Your task to perform on an android device: turn off notifications settings in the gmail app Image 0: 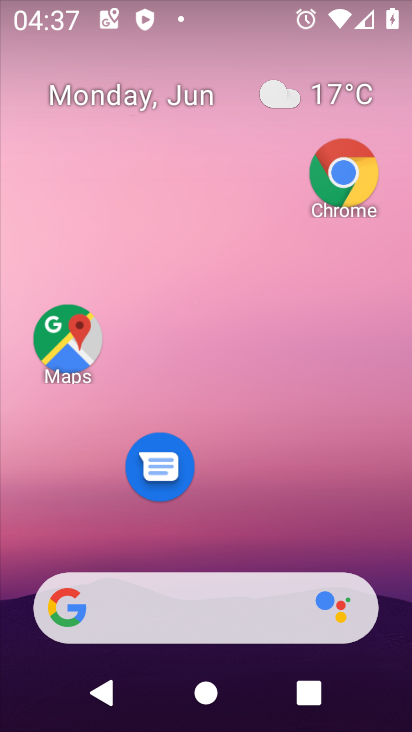
Step 0: drag from (230, 400) to (305, 3)
Your task to perform on an android device: turn off notifications settings in the gmail app Image 1: 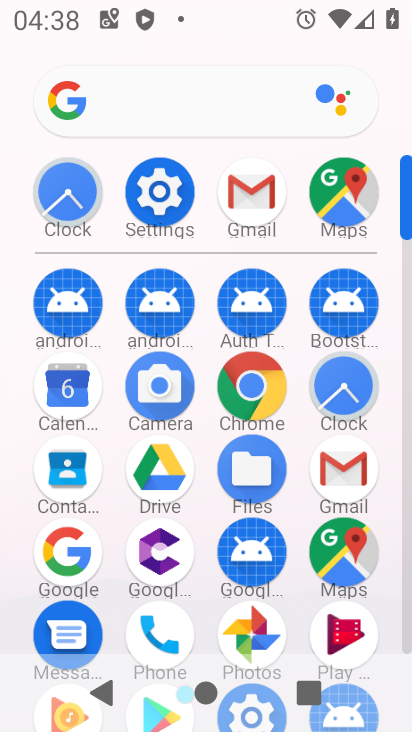
Step 1: click (332, 476)
Your task to perform on an android device: turn off notifications settings in the gmail app Image 2: 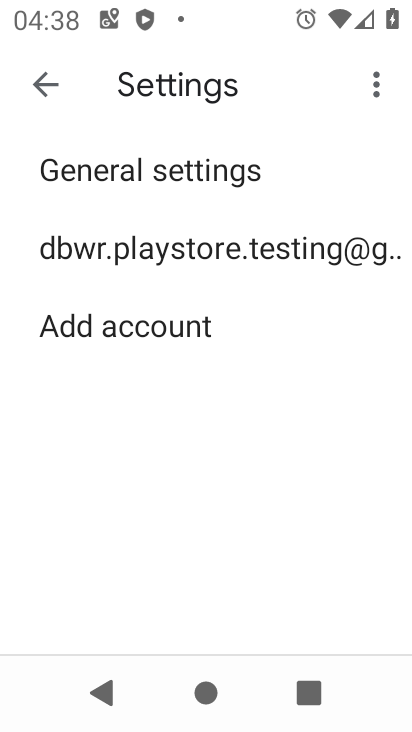
Step 2: click (177, 183)
Your task to perform on an android device: turn off notifications settings in the gmail app Image 3: 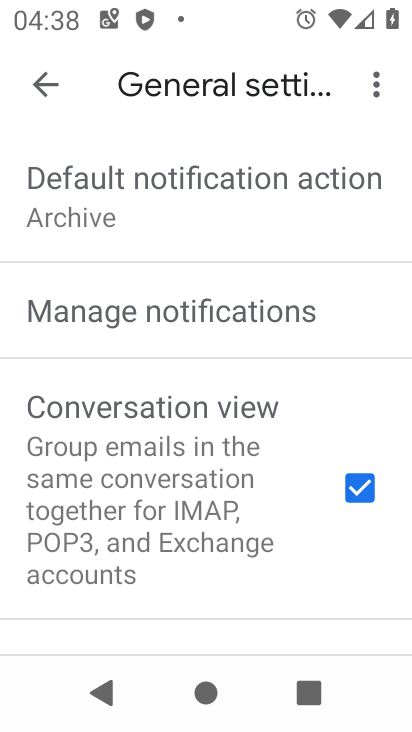
Step 3: click (142, 316)
Your task to perform on an android device: turn off notifications settings in the gmail app Image 4: 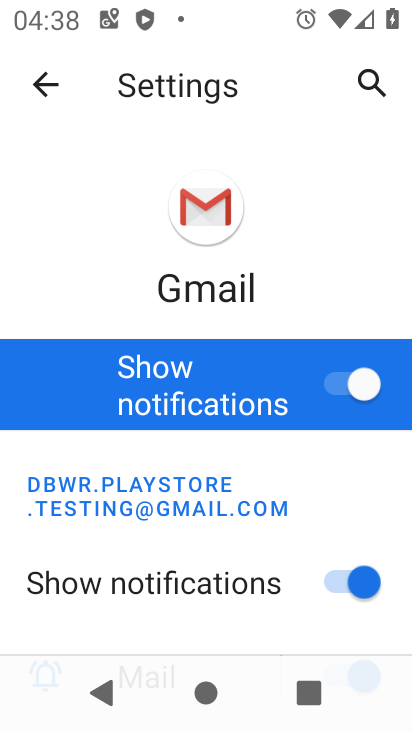
Step 4: drag from (216, 474) to (241, 264)
Your task to perform on an android device: turn off notifications settings in the gmail app Image 5: 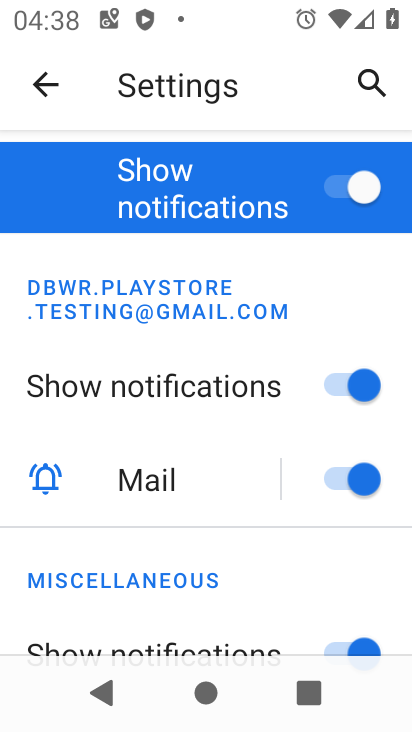
Step 5: click (318, 188)
Your task to perform on an android device: turn off notifications settings in the gmail app Image 6: 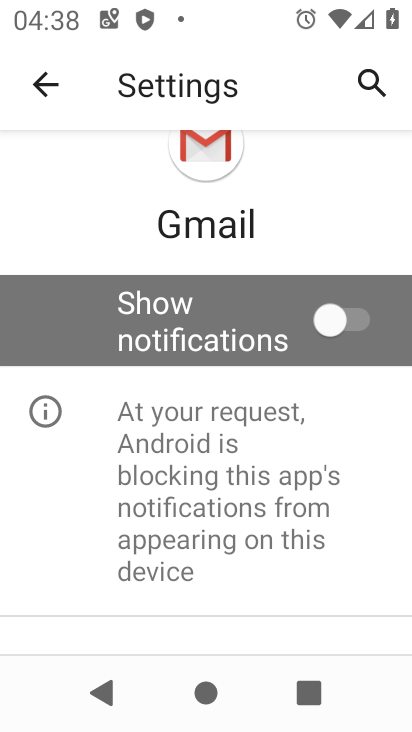
Step 6: task complete